Your task to perform on an android device: turn on javascript in the chrome app Image 0: 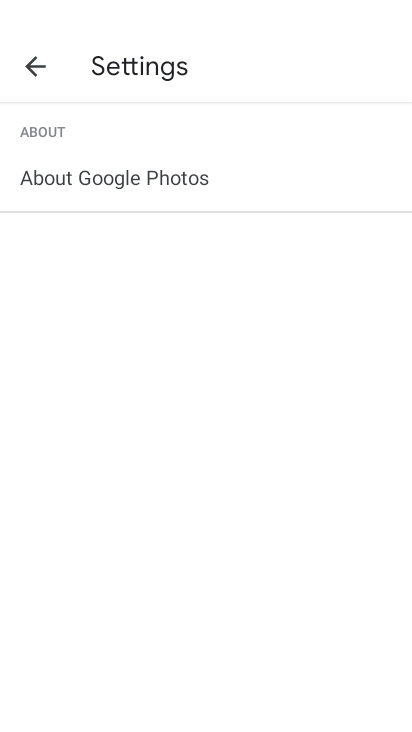
Step 0: press home button
Your task to perform on an android device: turn on javascript in the chrome app Image 1: 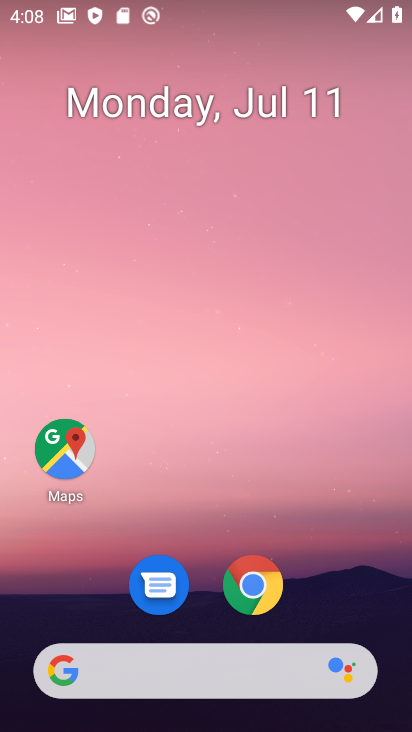
Step 1: drag from (336, 505) to (295, 214)
Your task to perform on an android device: turn on javascript in the chrome app Image 2: 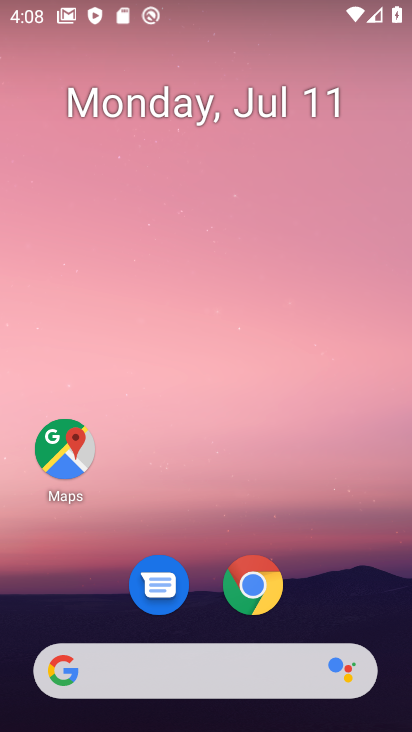
Step 2: click (257, 570)
Your task to perform on an android device: turn on javascript in the chrome app Image 3: 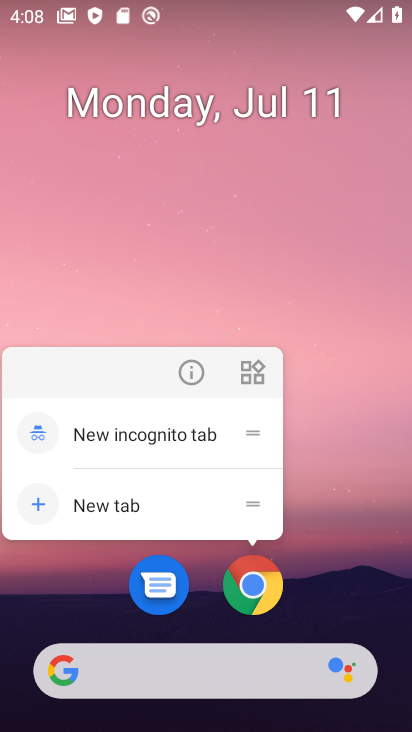
Step 3: click (264, 588)
Your task to perform on an android device: turn on javascript in the chrome app Image 4: 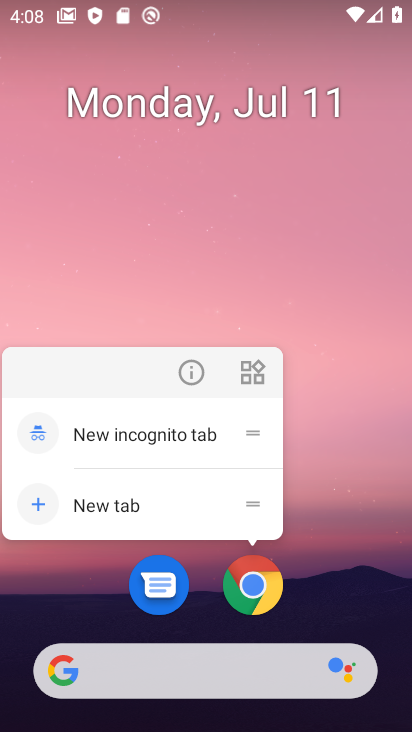
Step 4: click (262, 587)
Your task to perform on an android device: turn on javascript in the chrome app Image 5: 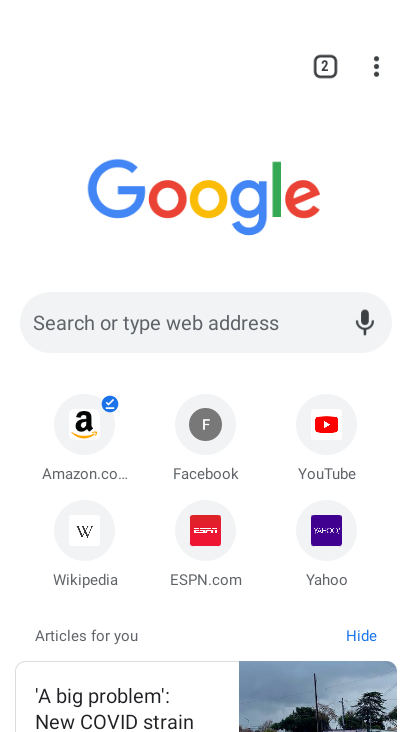
Step 5: click (378, 65)
Your task to perform on an android device: turn on javascript in the chrome app Image 6: 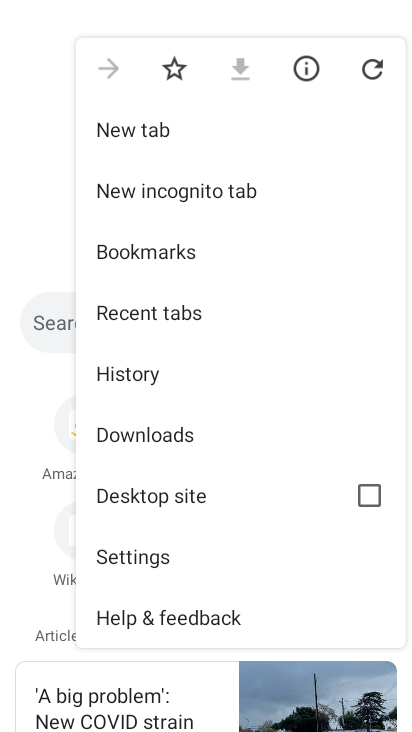
Step 6: click (162, 567)
Your task to perform on an android device: turn on javascript in the chrome app Image 7: 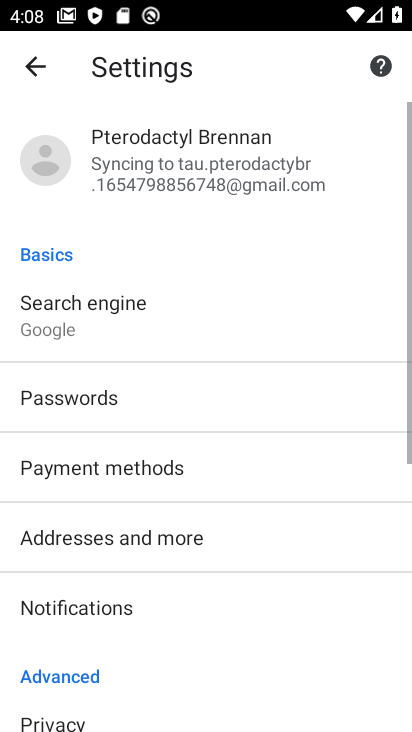
Step 7: drag from (246, 593) to (218, 329)
Your task to perform on an android device: turn on javascript in the chrome app Image 8: 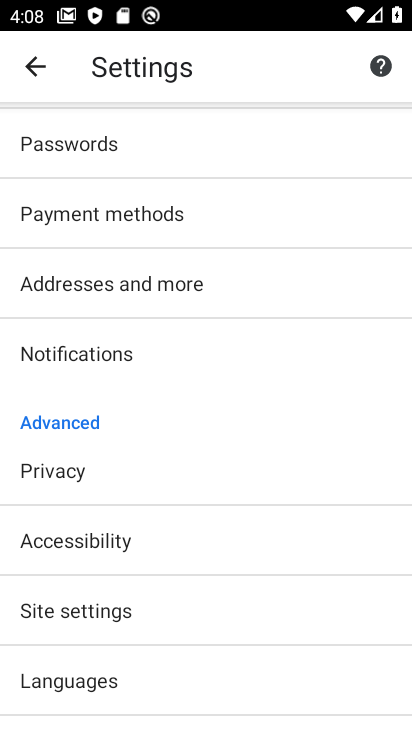
Step 8: click (109, 607)
Your task to perform on an android device: turn on javascript in the chrome app Image 9: 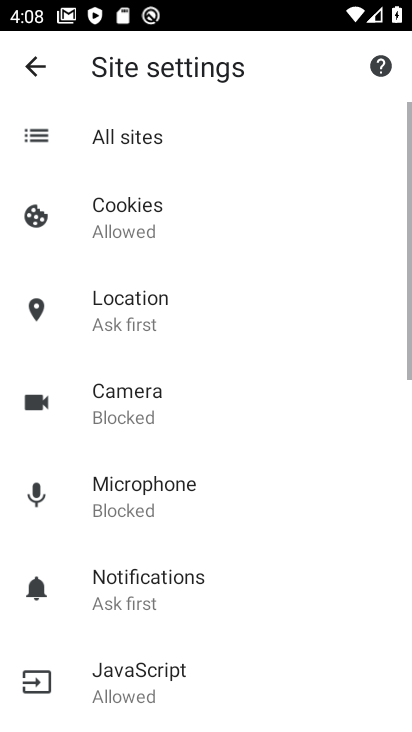
Step 9: drag from (262, 579) to (260, 479)
Your task to perform on an android device: turn on javascript in the chrome app Image 10: 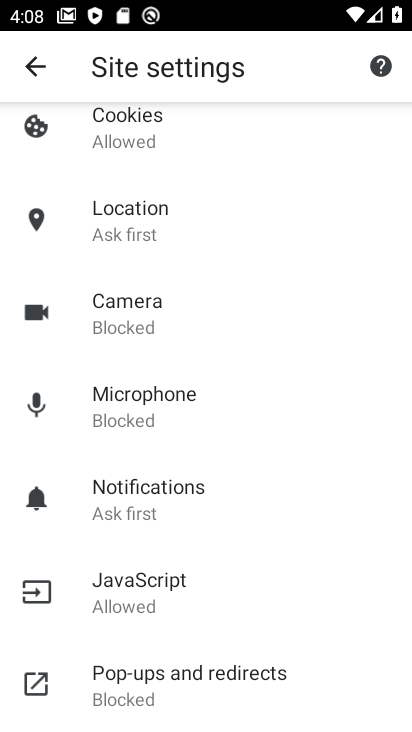
Step 10: click (165, 581)
Your task to perform on an android device: turn on javascript in the chrome app Image 11: 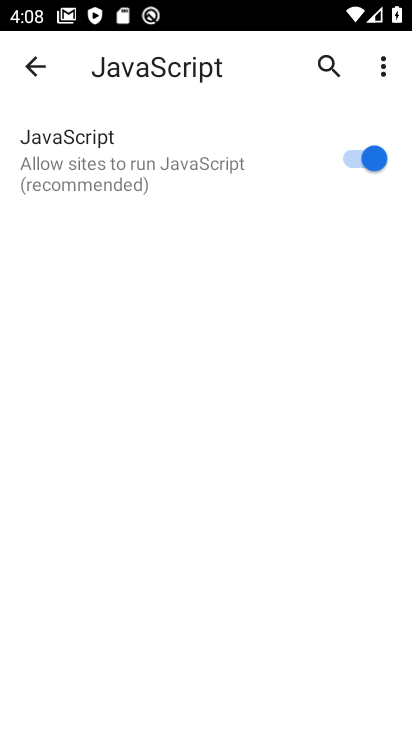
Step 11: task complete